Your task to perform on an android device: Go to Android settings Image 0: 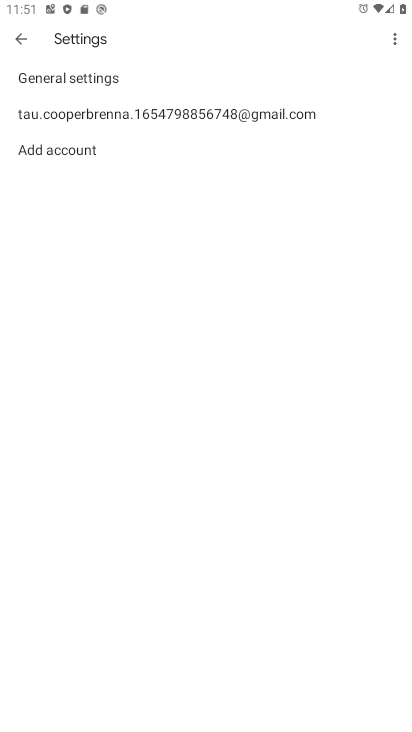
Step 0: press home button
Your task to perform on an android device: Go to Android settings Image 1: 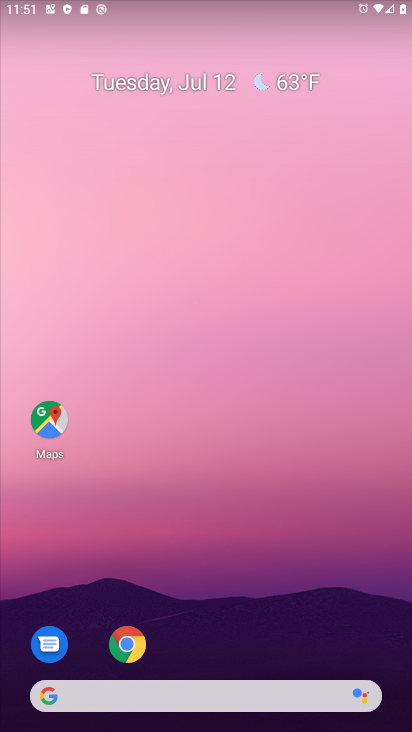
Step 1: drag from (177, 693) to (222, 271)
Your task to perform on an android device: Go to Android settings Image 2: 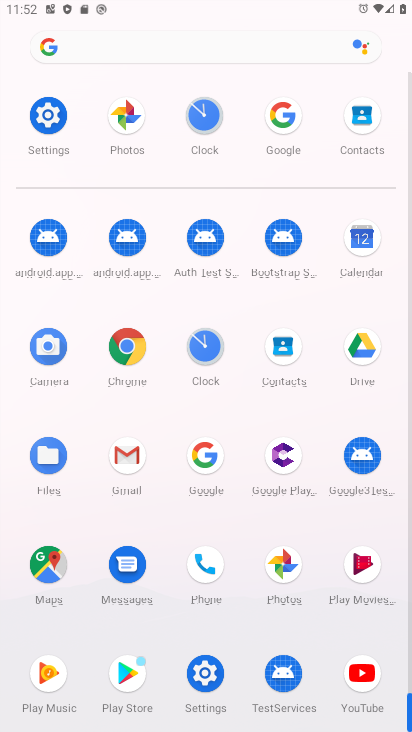
Step 2: click (47, 113)
Your task to perform on an android device: Go to Android settings Image 3: 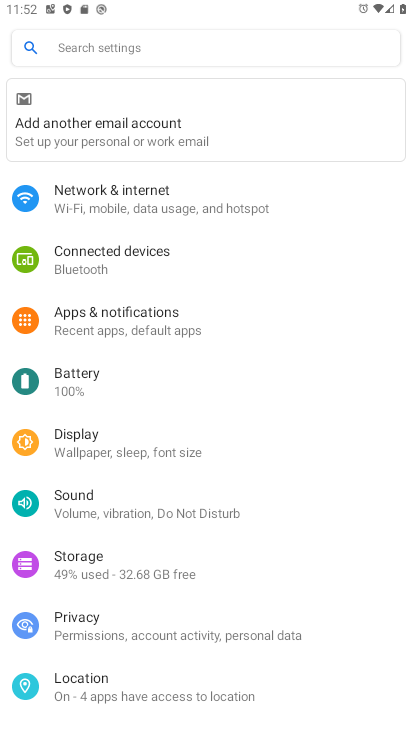
Step 3: task complete